Your task to perform on an android device: toggle location history Image 0: 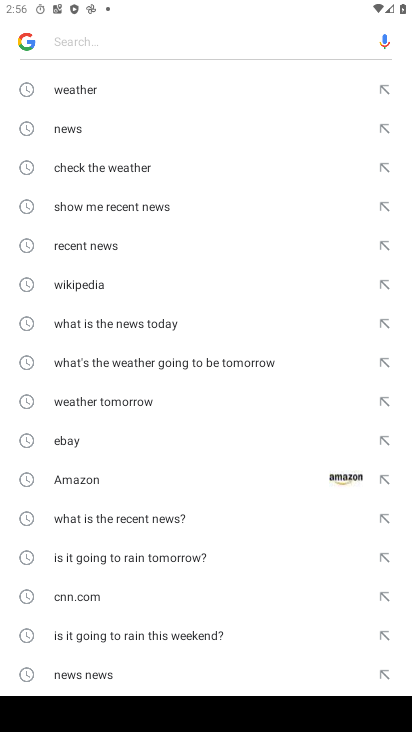
Step 0: press home button
Your task to perform on an android device: toggle location history Image 1: 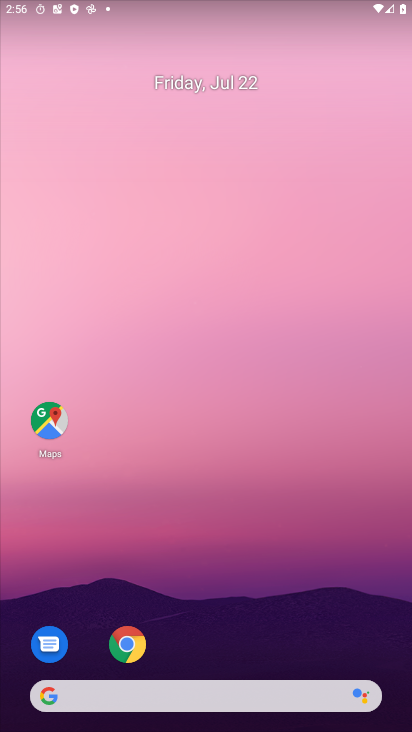
Step 1: drag from (226, 665) to (142, 107)
Your task to perform on an android device: toggle location history Image 2: 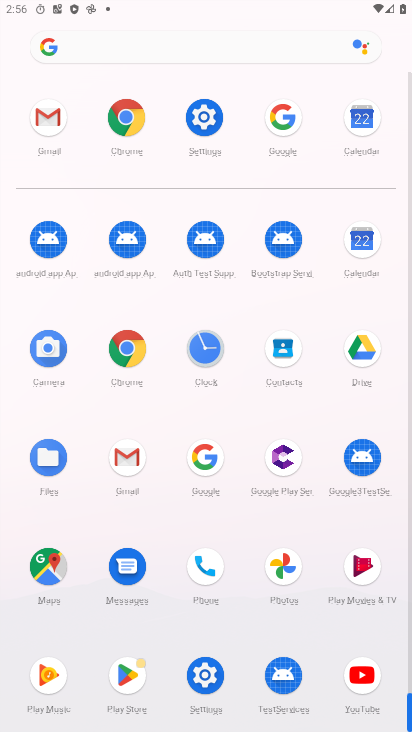
Step 2: click (210, 145)
Your task to perform on an android device: toggle location history Image 3: 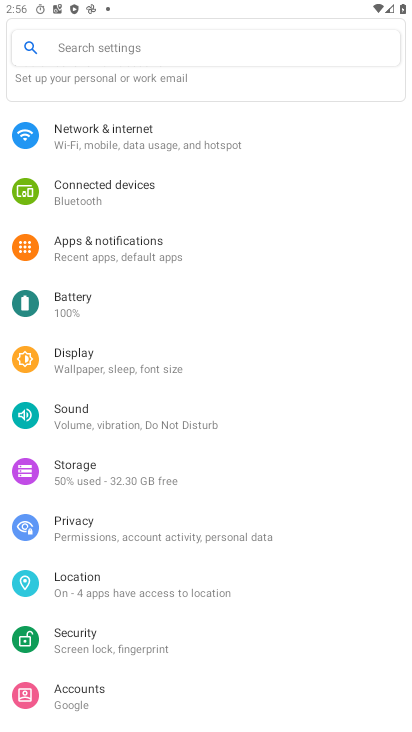
Step 3: click (180, 588)
Your task to perform on an android device: toggle location history Image 4: 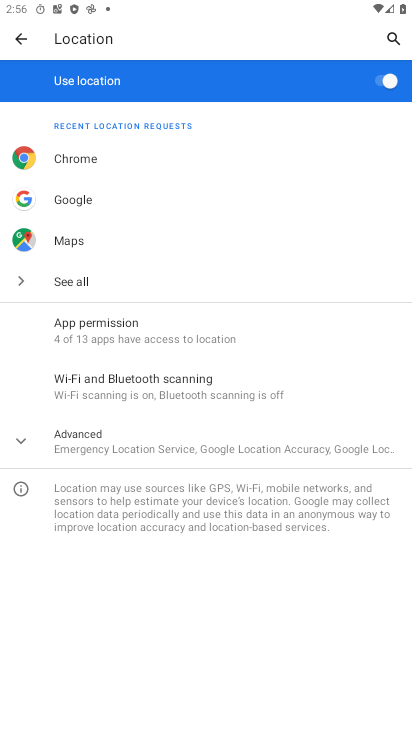
Step 4: click (146, 435)
Your task to perform on an android device: toggle location history Image 5: 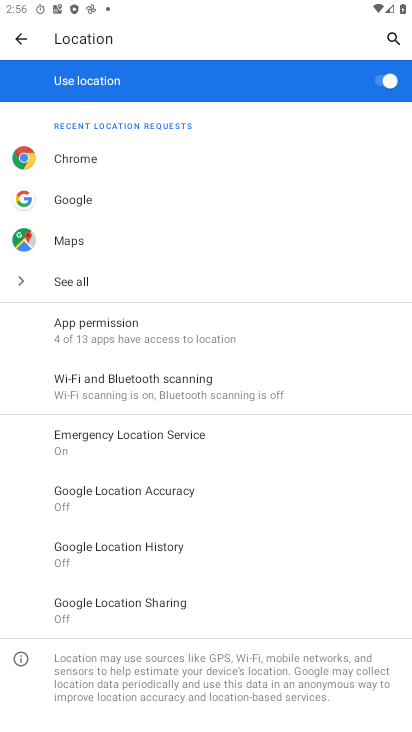
Step 5: click (165, 553)
Your task to perform on an android device: toggle location history Image 6: 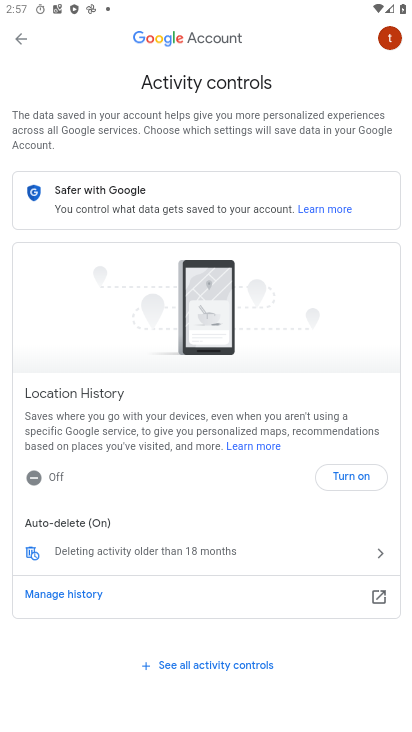
Step 6: drag from (194, 544) to (153, 314)
Your task to perform on an android device: toggle location history Image 7: 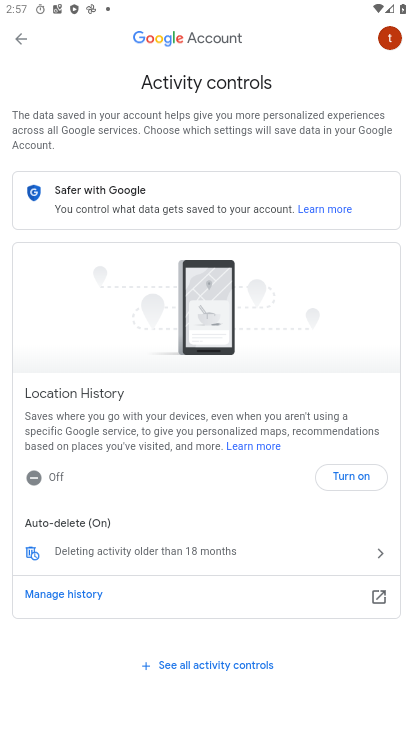
Step 7: click (351, 482)
Your task to perform on an android device: toggle location history Image 8: 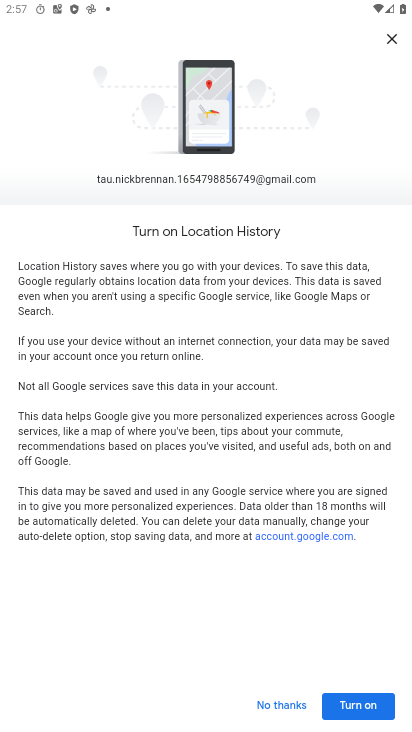
Step 8: click (377, 705)
Your task to perform on an android device: toggle location history Image 9: 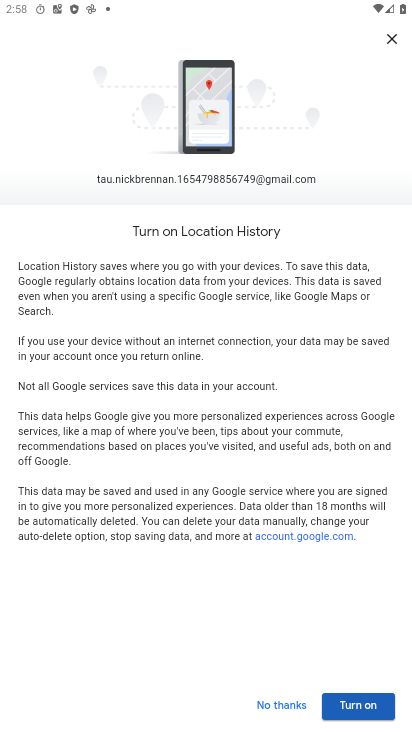
Step 9: click (378, 706)
Your task to perform on an android device: toggle location history Image 10: 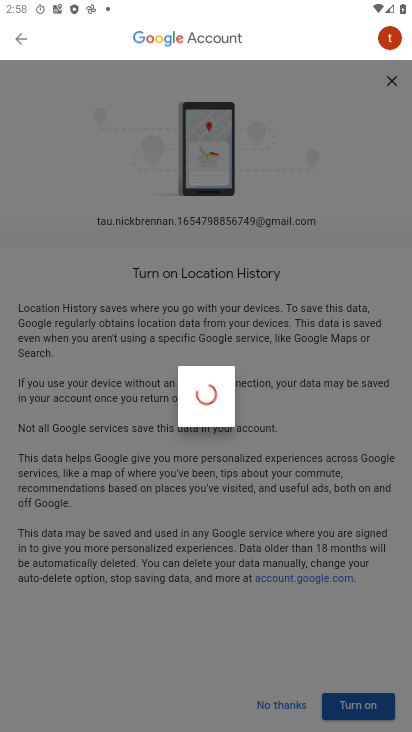
Step 10: task complete